Your task to perform on an android device: turn off notifications in google photos Image 0: 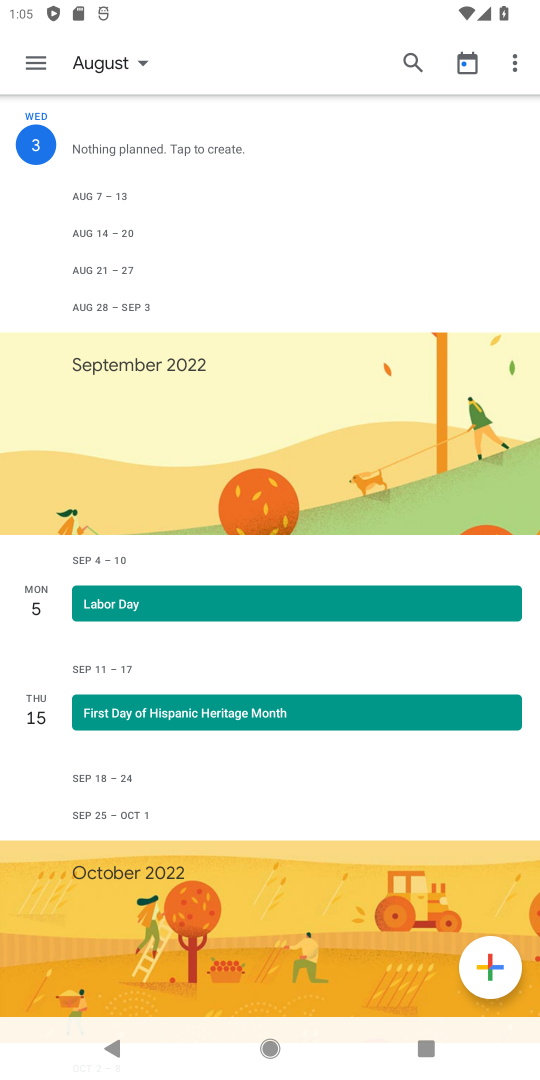
Step 0: drag from (291, 780) to (348, 352)
Your task to perform on an android device: turn off notifications in google photos Image 1: 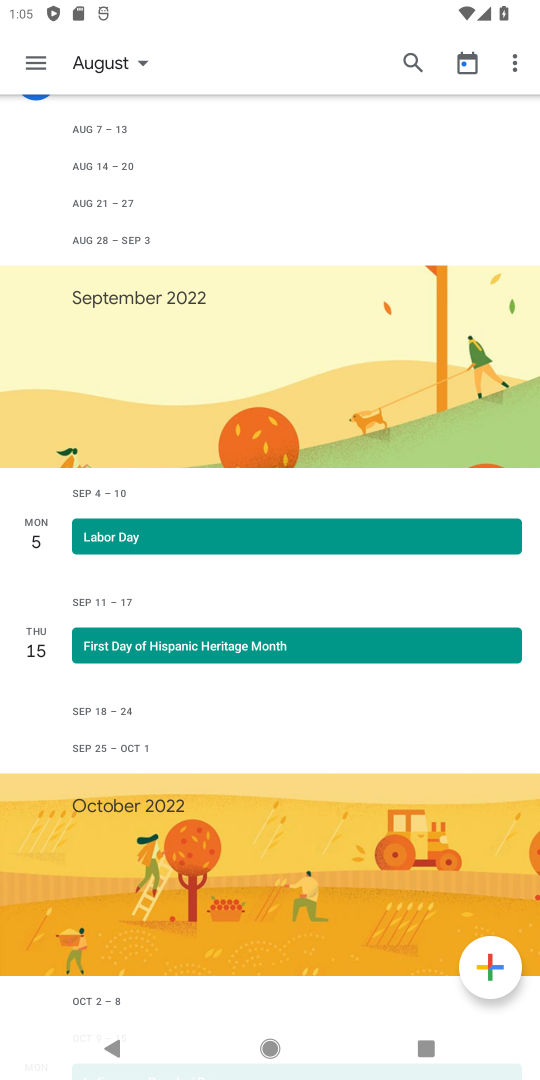
Step 1: drag from (353, 262) to (349, 1067)
Your task to perform on an android device: turn off notifications in google photos Image 2: 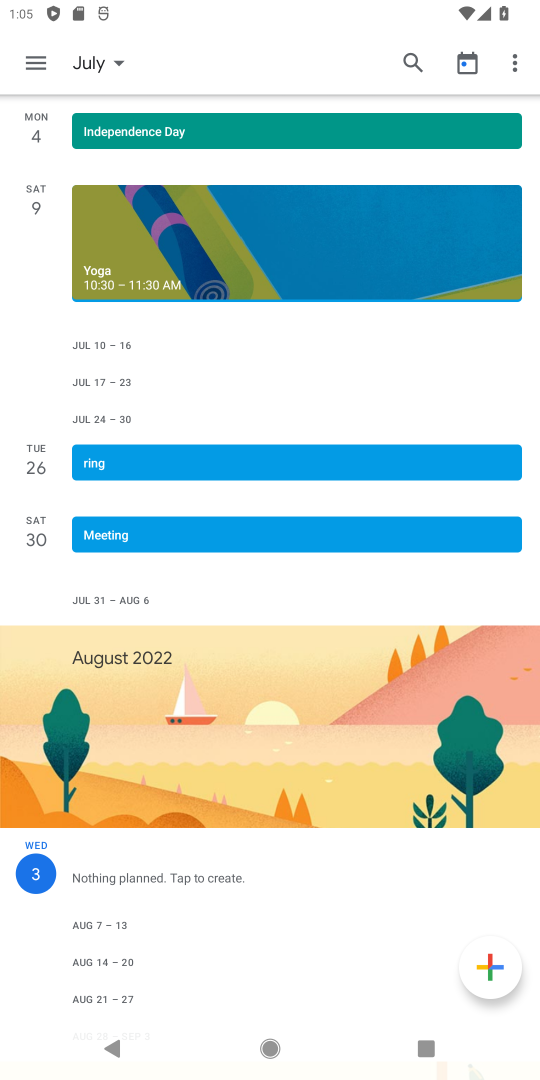
Step 2: drag from (320, 855) to (346, 569)
Your task to perform on an android device: turn off notifications in google photos Image 3: 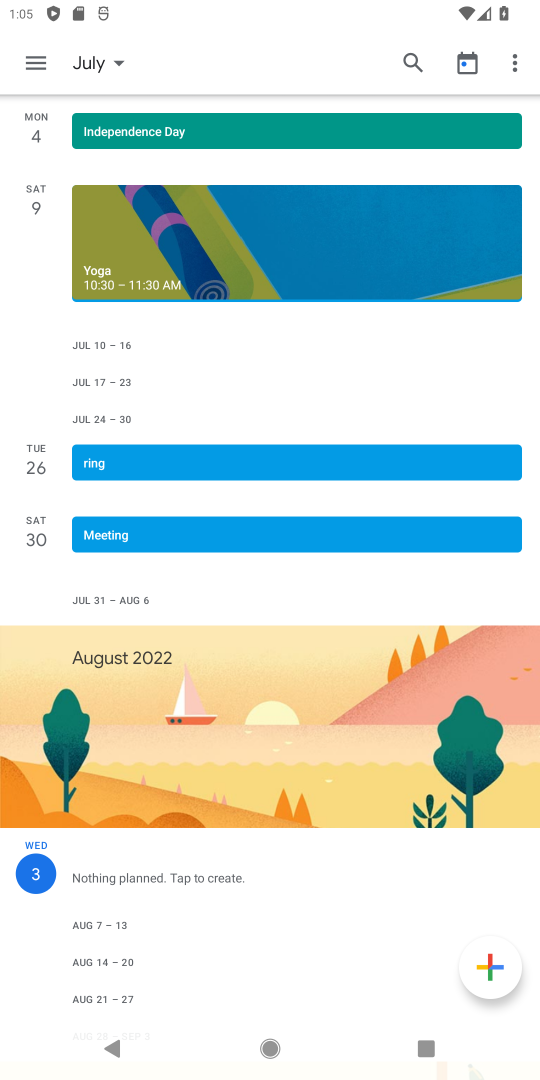
Step 3: drag from (354, 402) to (313, 998)
Your task to perform on an android device: turn off notifications in google photos Image 4: 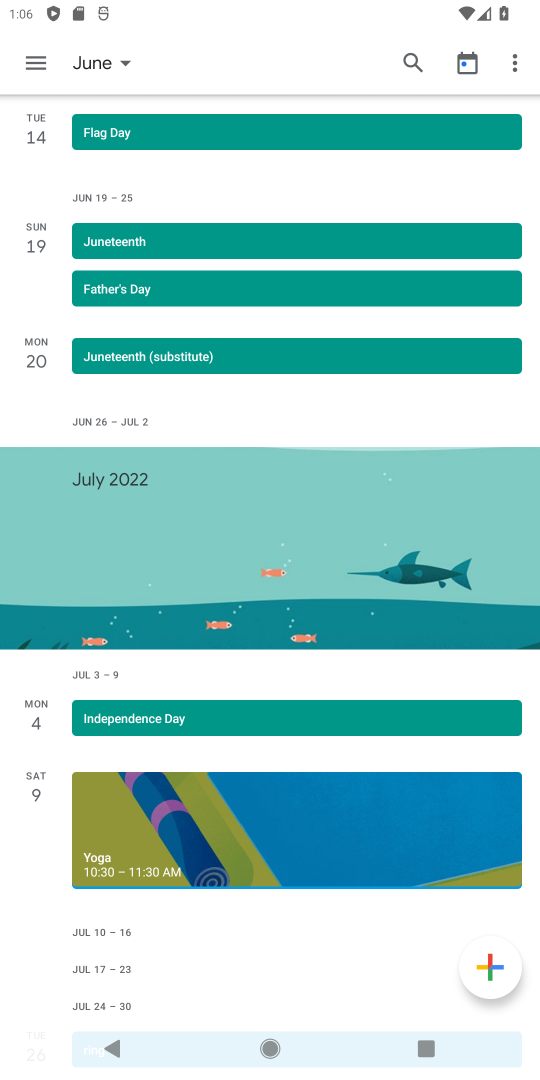
Step 4: drag from (201, 974) to (315, 372)
Your task to perform on an android device: turn off notifications in google photos Image 5: 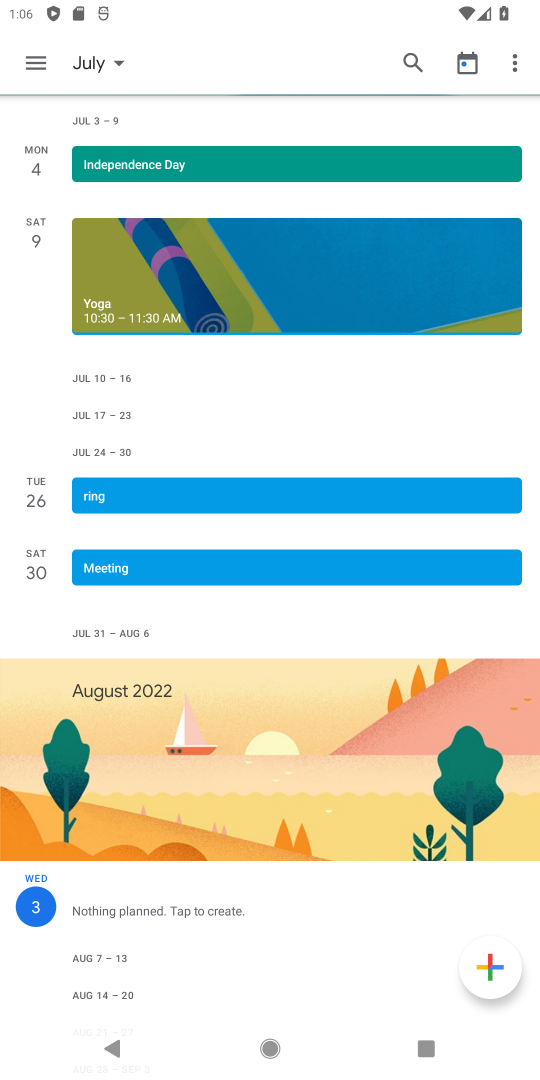
Step 5: drag from (315, 320) to (273, 1008)
Your task to perform on an android device: turn off notifications in google photos Image 6: 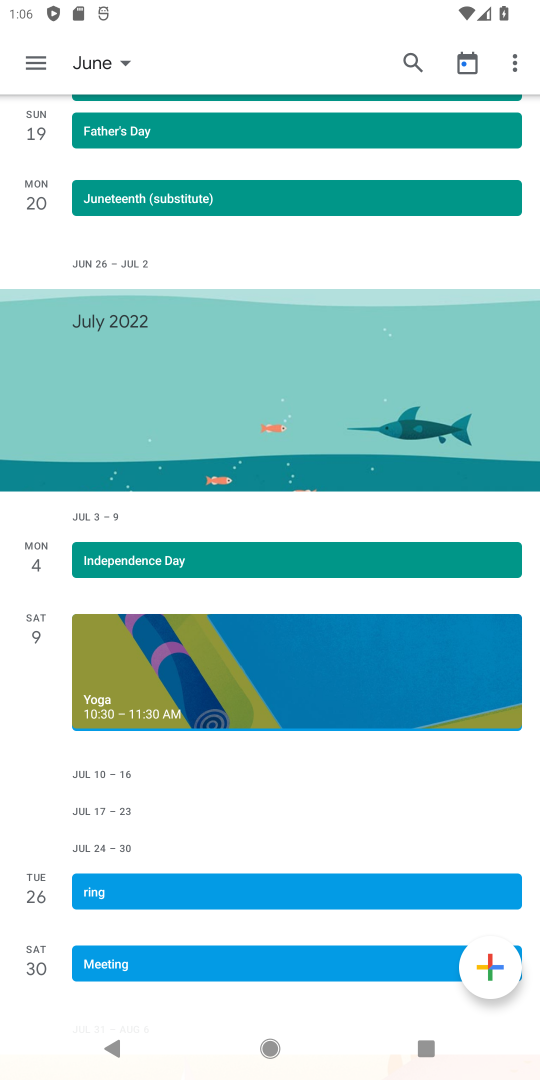
Step 6: click (114, 55)
Your task to perform on an android device: turn off notifications in google photos Image 7: 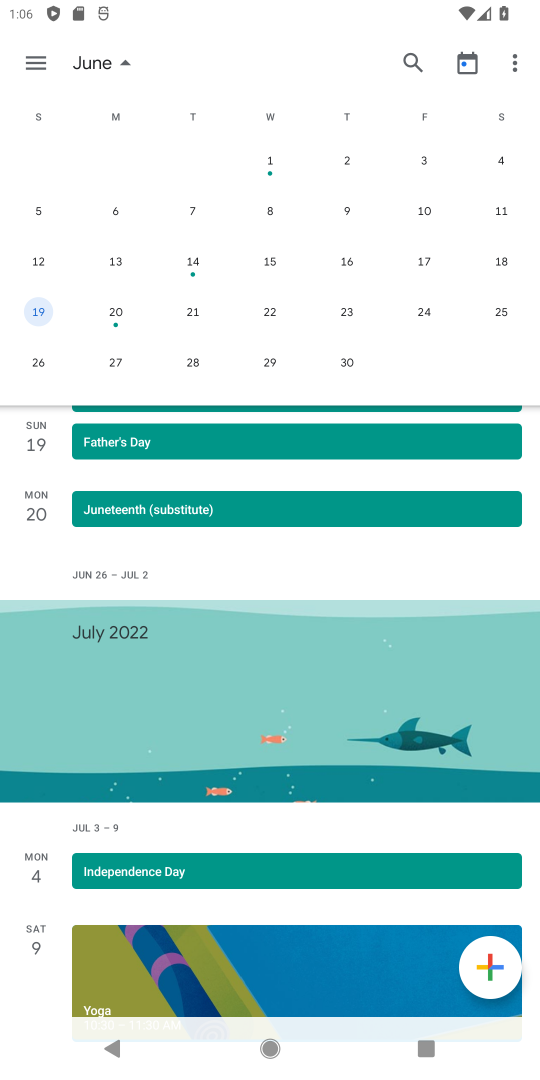
Step 7: press home button
Your task to perform on an android device: turn off notifications in google photos Image 8: 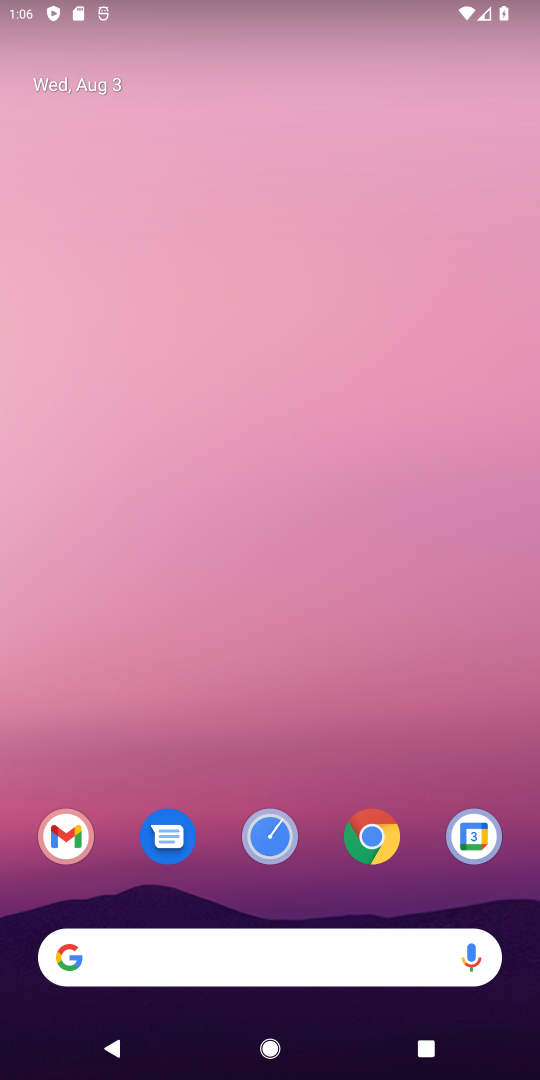
Step 8: drag from (216, 806) to (345, 59)
Your task to perform on an android device: turn off notifications in google photos Image 9: 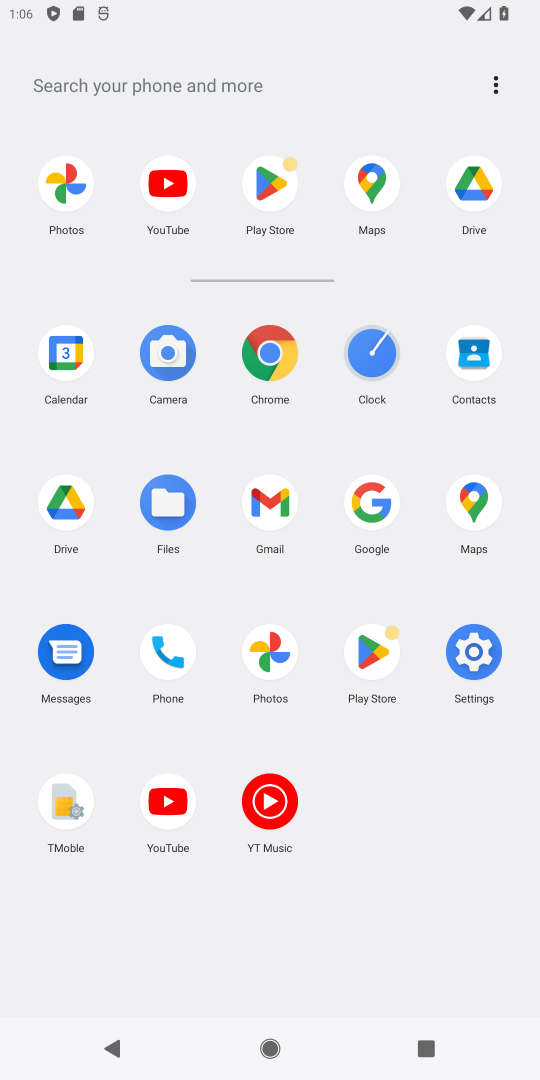
Step 9: click (259, 635)
Your task to perform on an android device: turn off notifications in google photos Image 10: 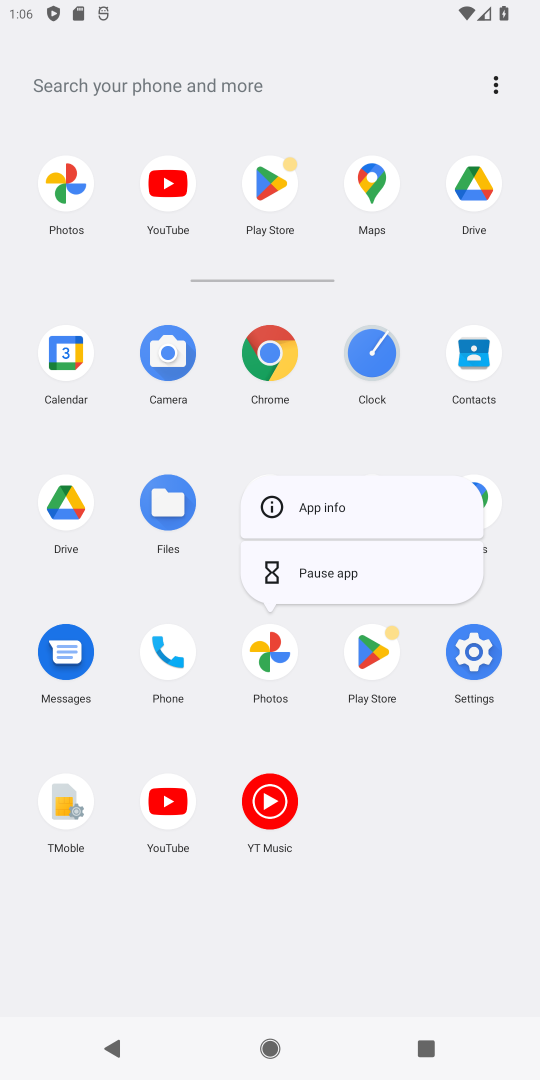
Step 10: click (299, 512)
Your task to perform on an android device: turn off notifications in google photos Image 11: 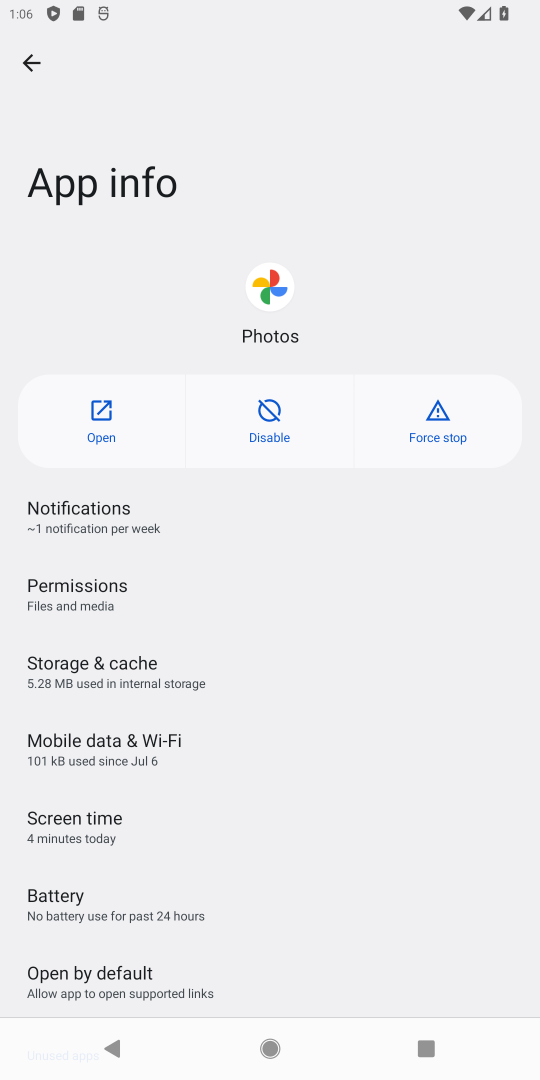
Step 11: click (85, 409)
Your task to perform on an android device: turn off notifications in google photos Image 12: 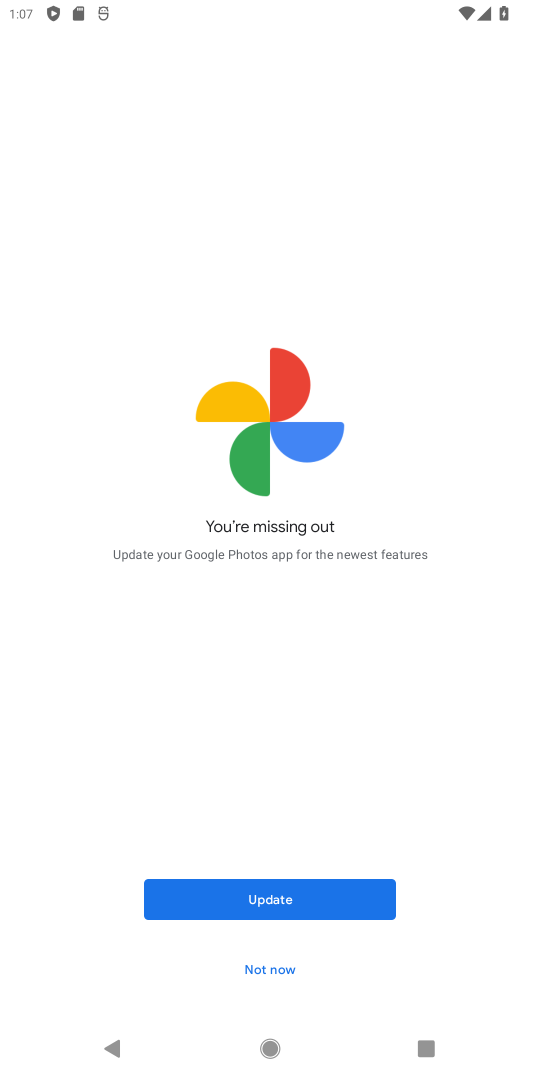
Step 12: click (280, 959)
Your task to perform on an android device: turn off notifications in google photos Image 13: 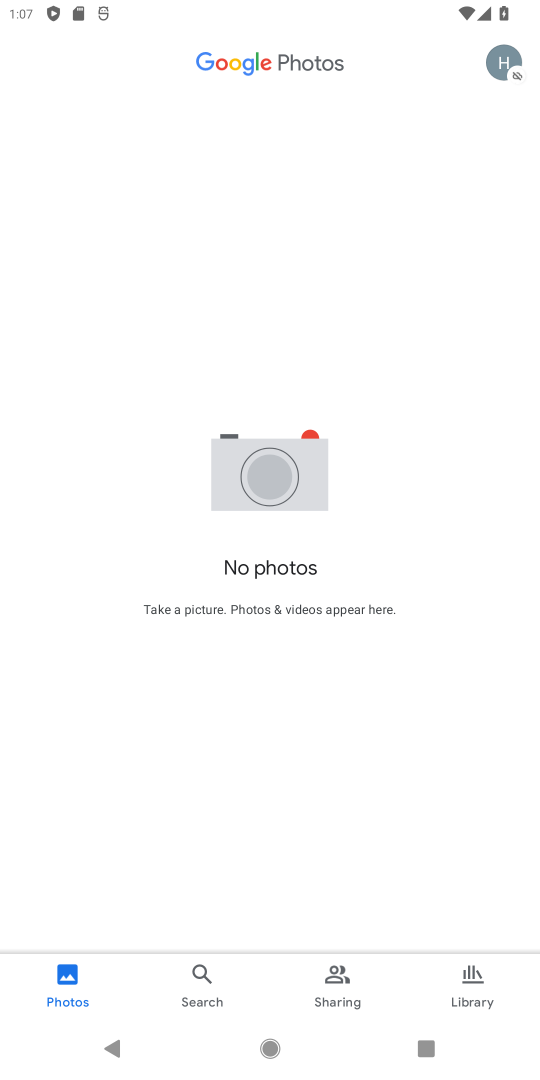
Step 13: drag from (290, 762) to (330, 355)
Your task to perform on an android device: turn off notifications in google photos Image 14: 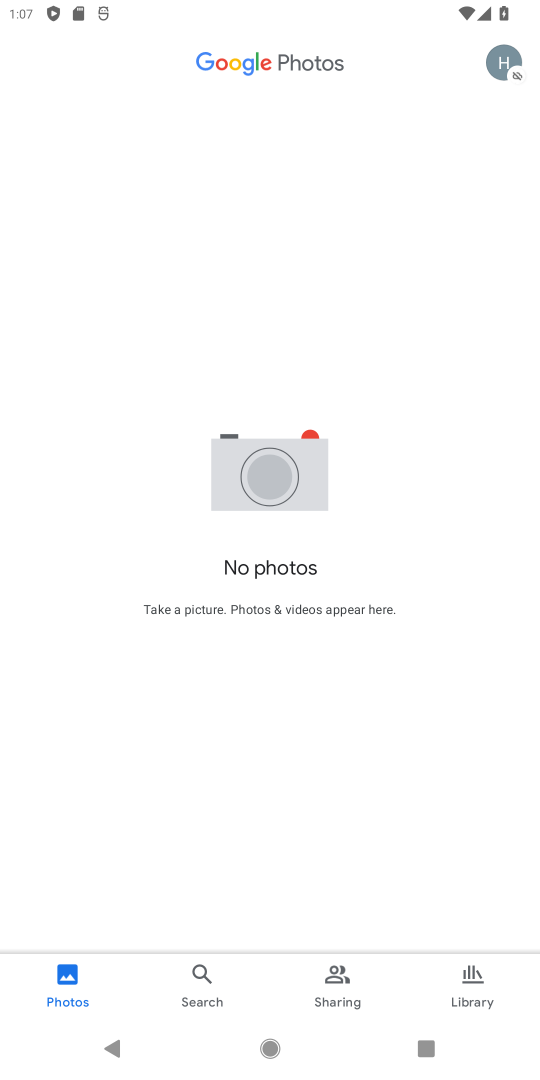
Step 14: click (466, 998)
Your task to perform on an android device: turn off notifications in google photos Image 15: 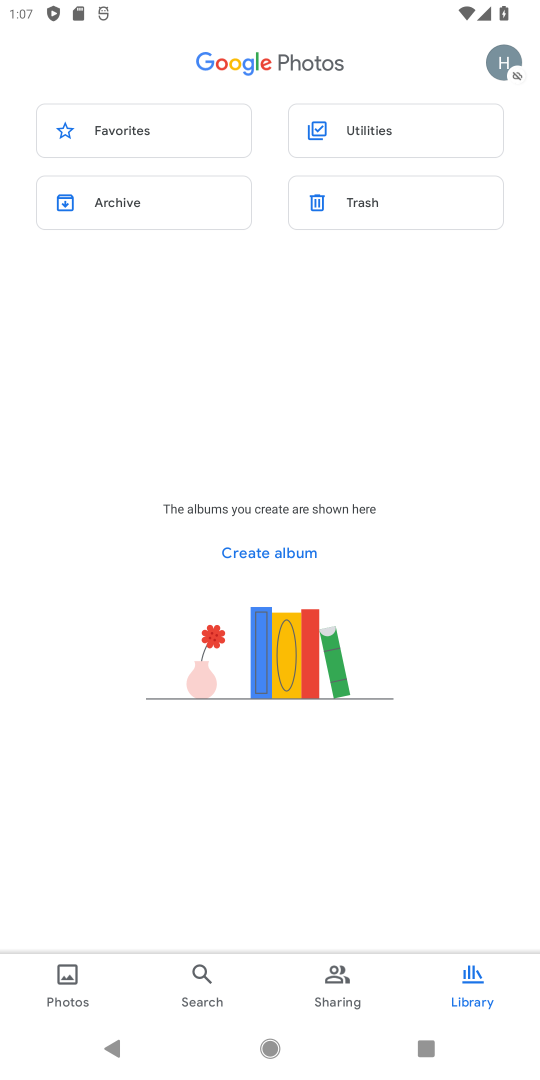
Step 15: drag from (271, 771) to (301, 495)
Your task to perform on an android device: turn off notifications in google photos Image 16: 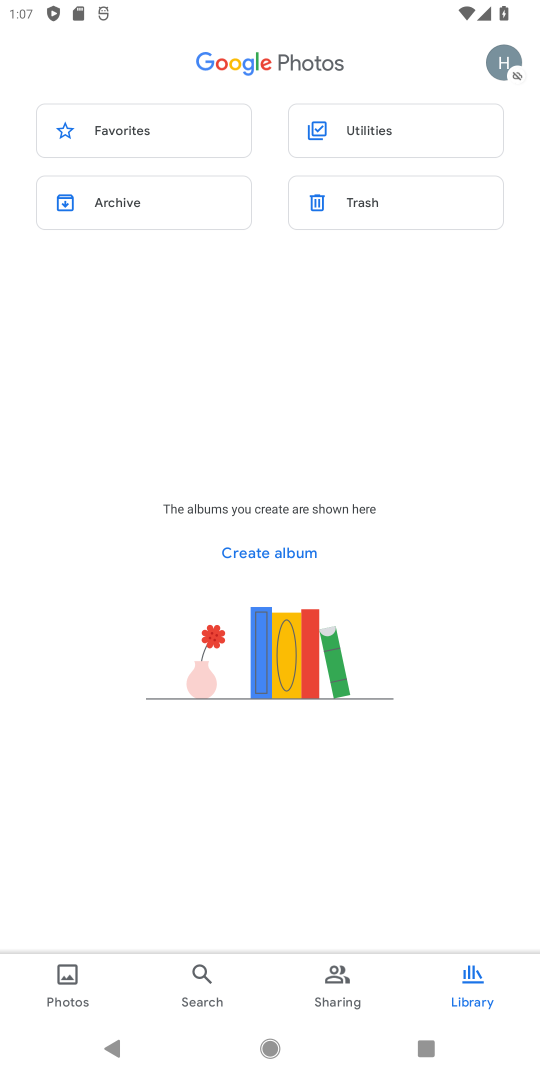
Step 16: drag from (243, 262) to (534, 562)
Your task to perform on an android device: turn off notifications in google photos Image 17: 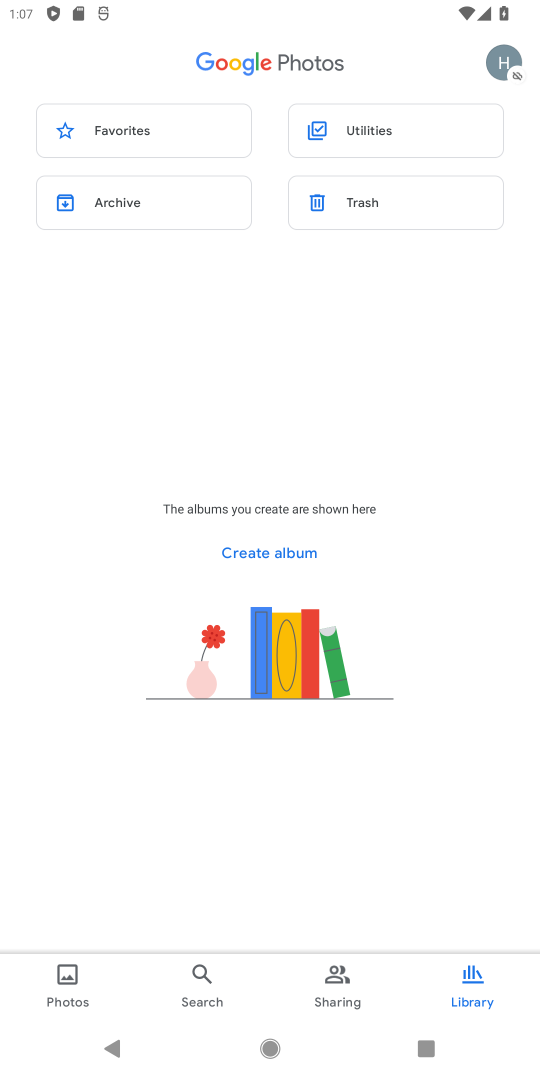
Step 17: drag from (293, 407) to (248, 767)
Your task to perform on an android device: turn off notifications in google photos Image 18: 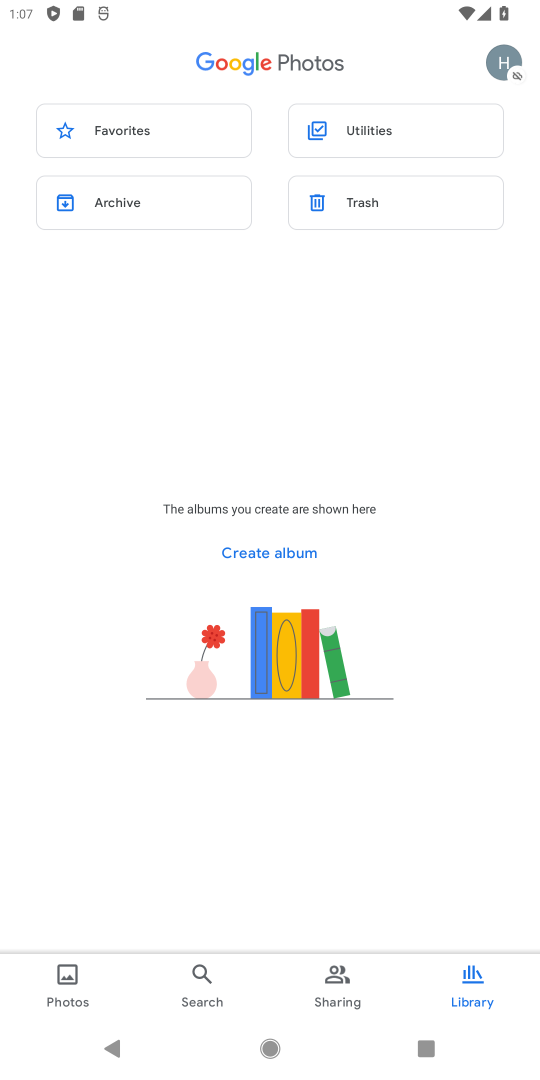
Step 18: click (503, 46)
Your task to perform on an android device: turn off notifications in google photos Image 19: 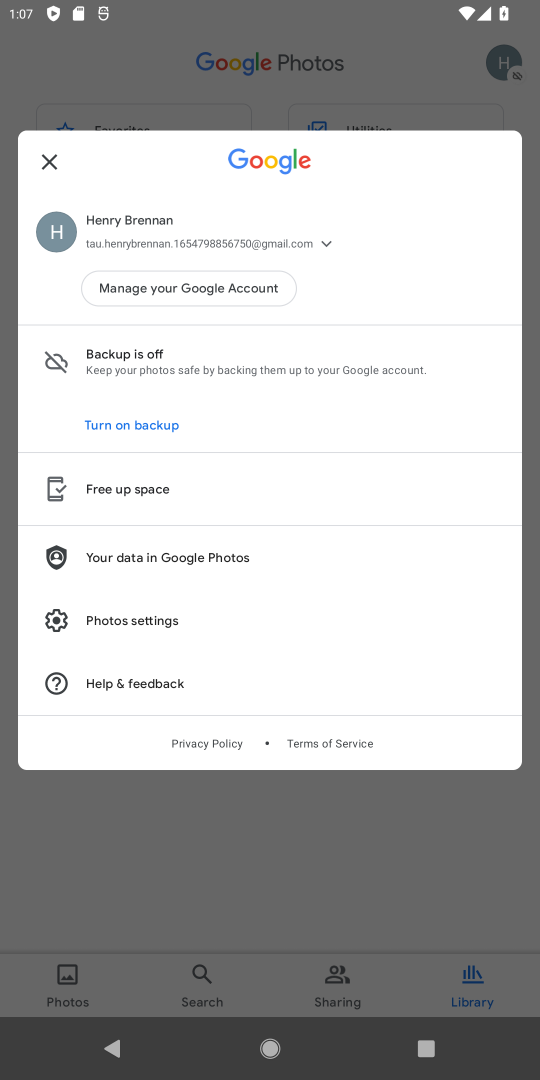
Step 19: click (83, 616)
Your task to perform on an android device: turn off notifications in google photos Image 20: 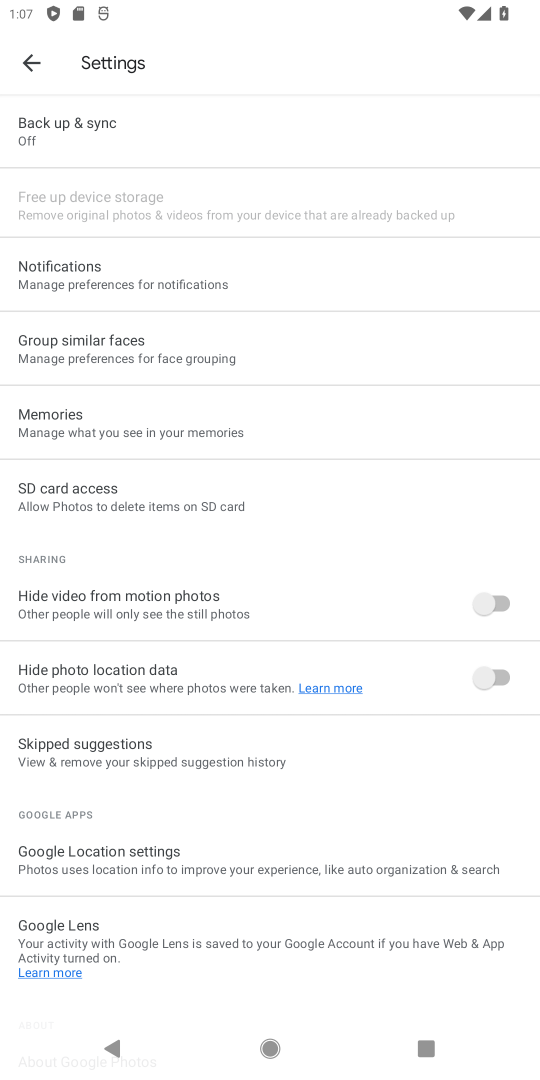
Step 20: click (123, 277)
Your task to perform on an android device: turn off notifications in google photos Image 21: 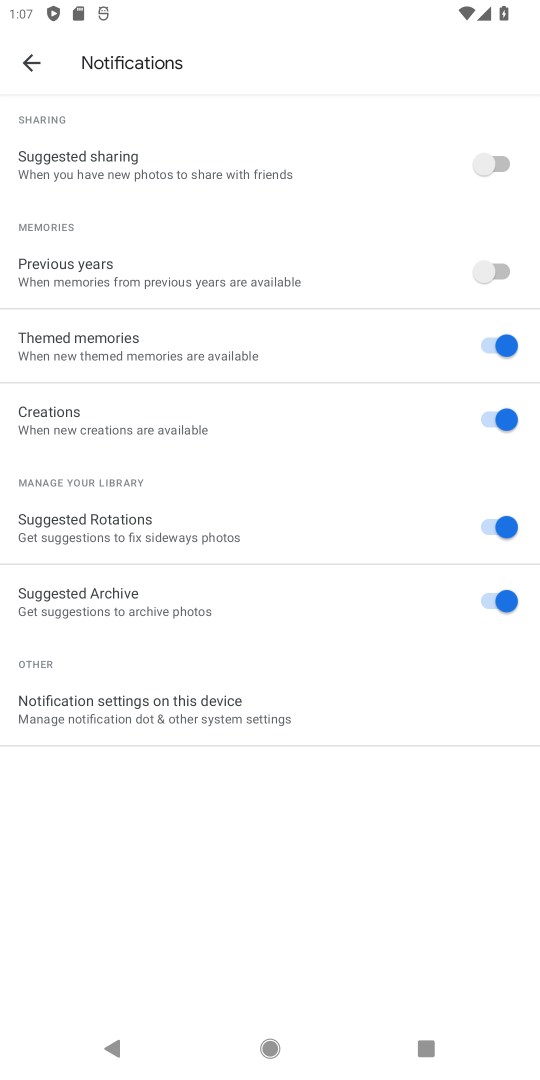
Step 21: drag from (214, 741) to (281, 320)
Your task to perform on an android device: turn off notifications in google photos Image 22: 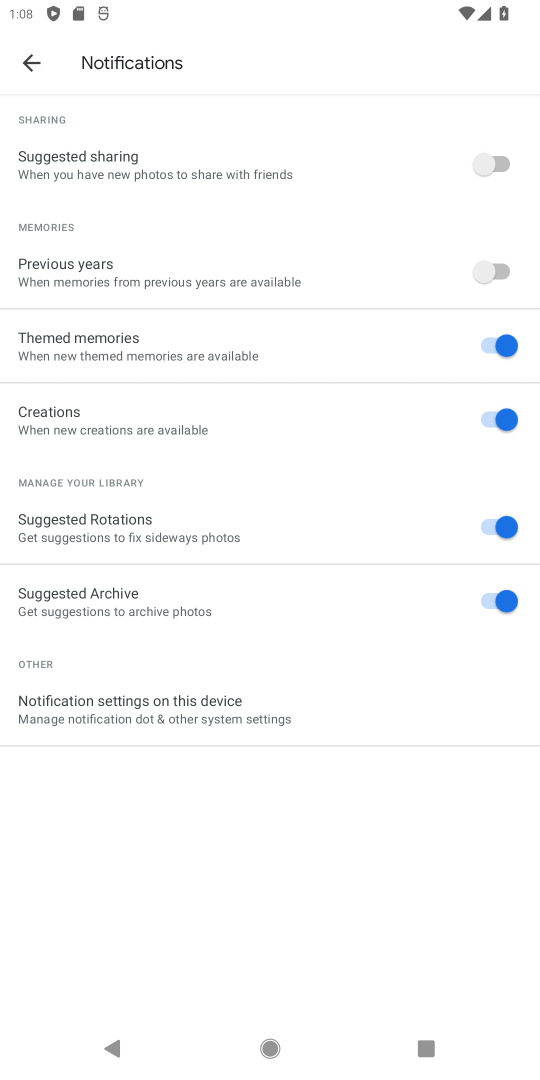
Step 22: drag from (180, 849) to (255, 546)
Your task to perform on an android device: turn off notifications in google photos Image 23: 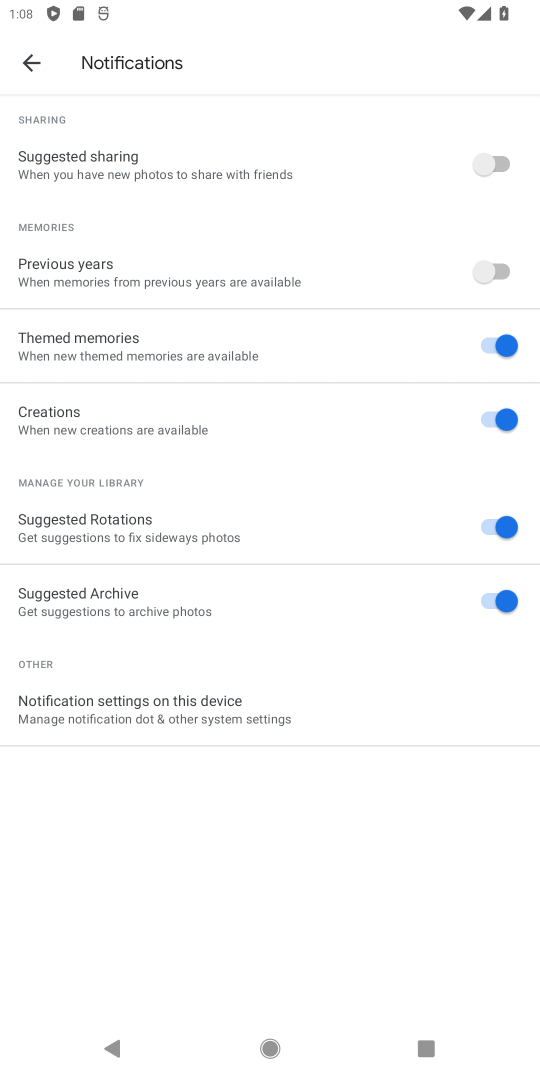
Step 23: click (103, 721)
Your task to perform on an android device: turn off notifications in google photos Image 24: 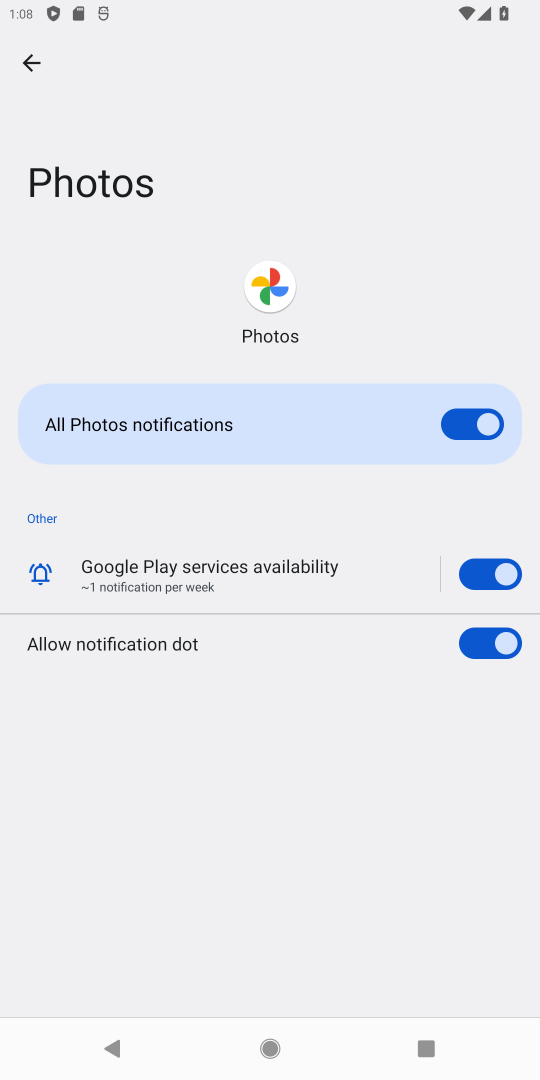
Step 24: click (464, 417)
Your task to perform on an android device: turn off notifications in google photos Image 25: 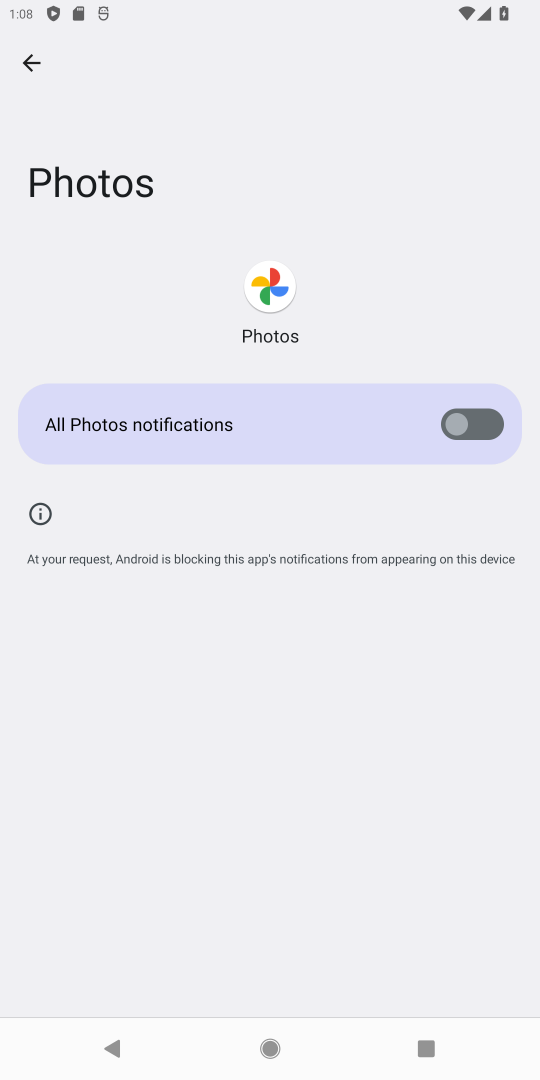
Step 25: task complete